Your task to perform on an android device: open app "McDonald's" (install if not already installed) Image 0: 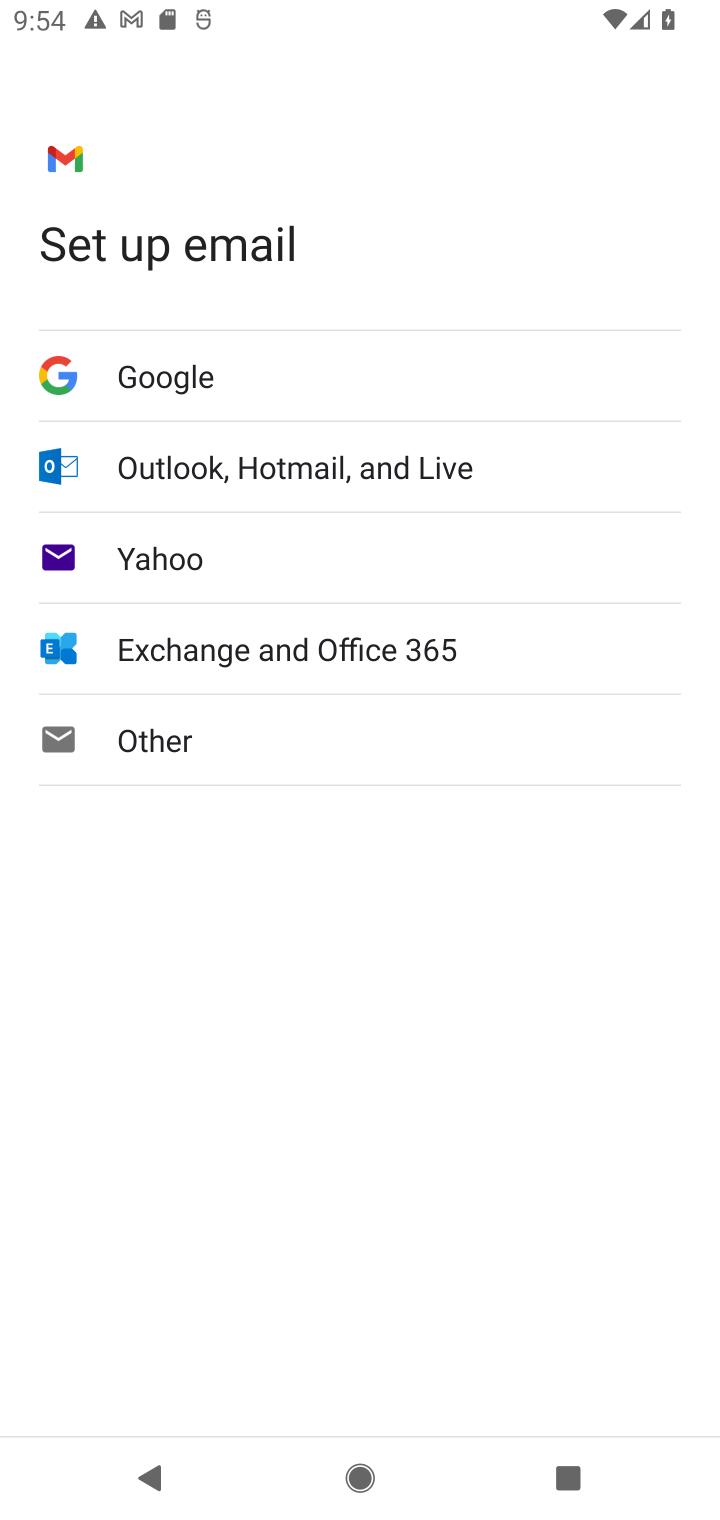
Step 0: press home button
Your task to perform on an android device: open app "McDonald's" (install if not already installed) Image 1: 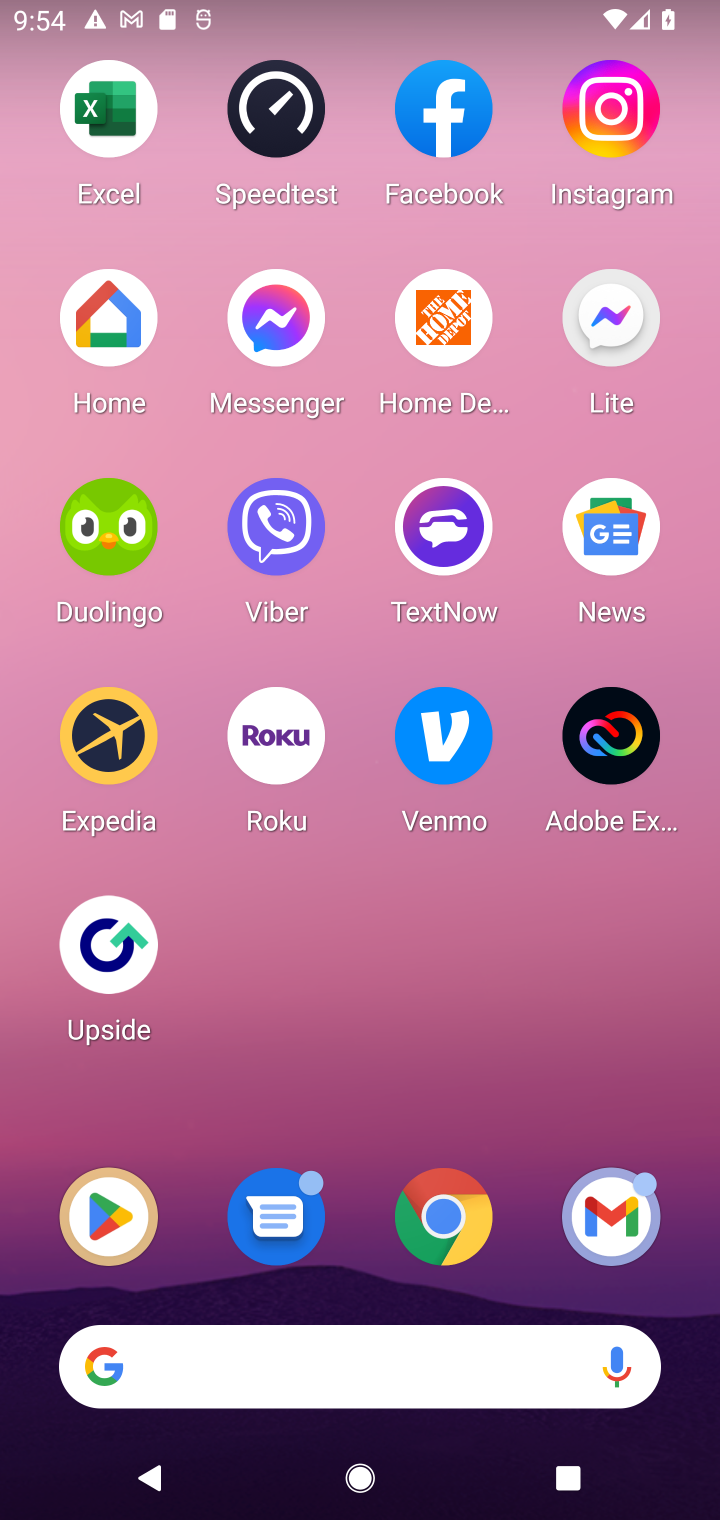
Step 1: click (105, 1214)
Your task to perform on an android device: open app "McDonald's" (install if not already installed) Image 2: 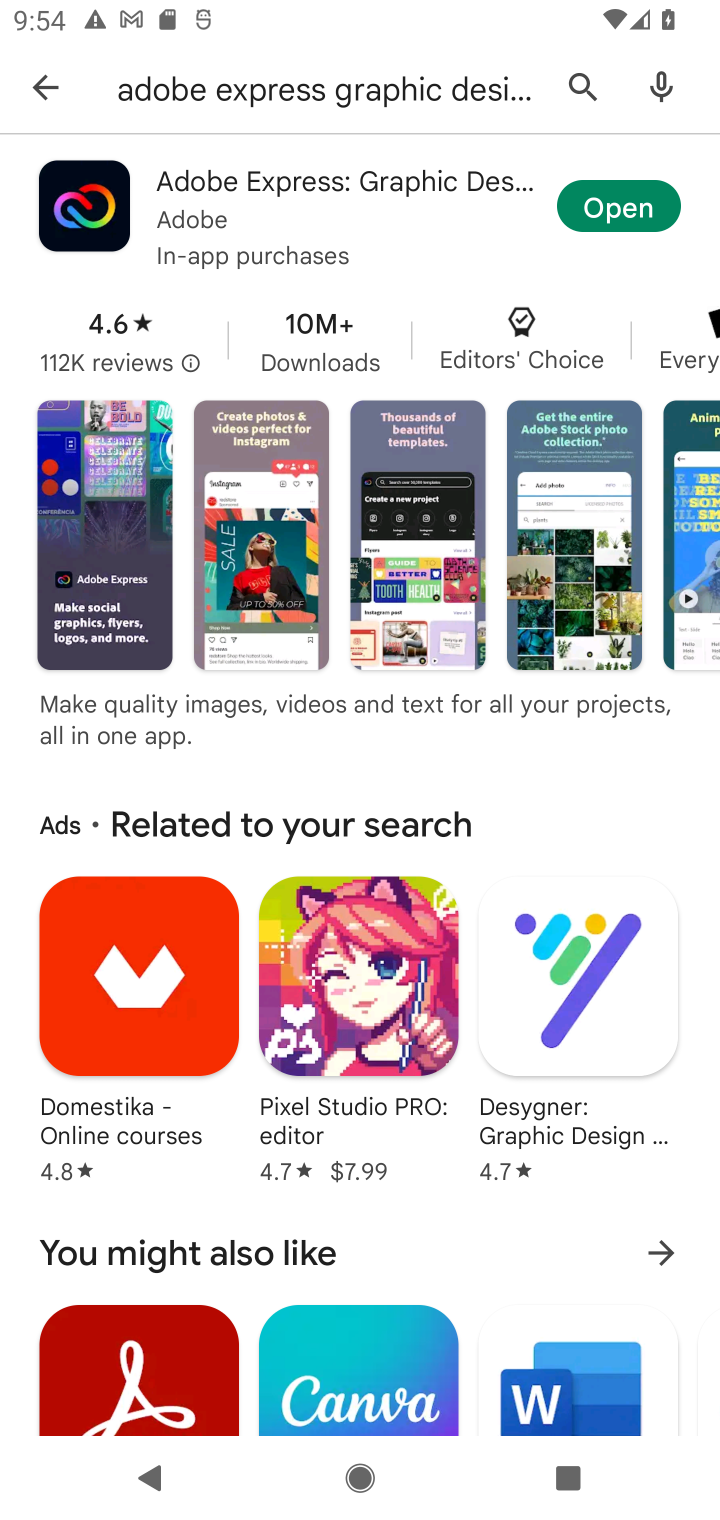
Step 2: click (577, 87)
Your task to perform on an android device: open app "McDonald's" (install if not already installed) Image 3: 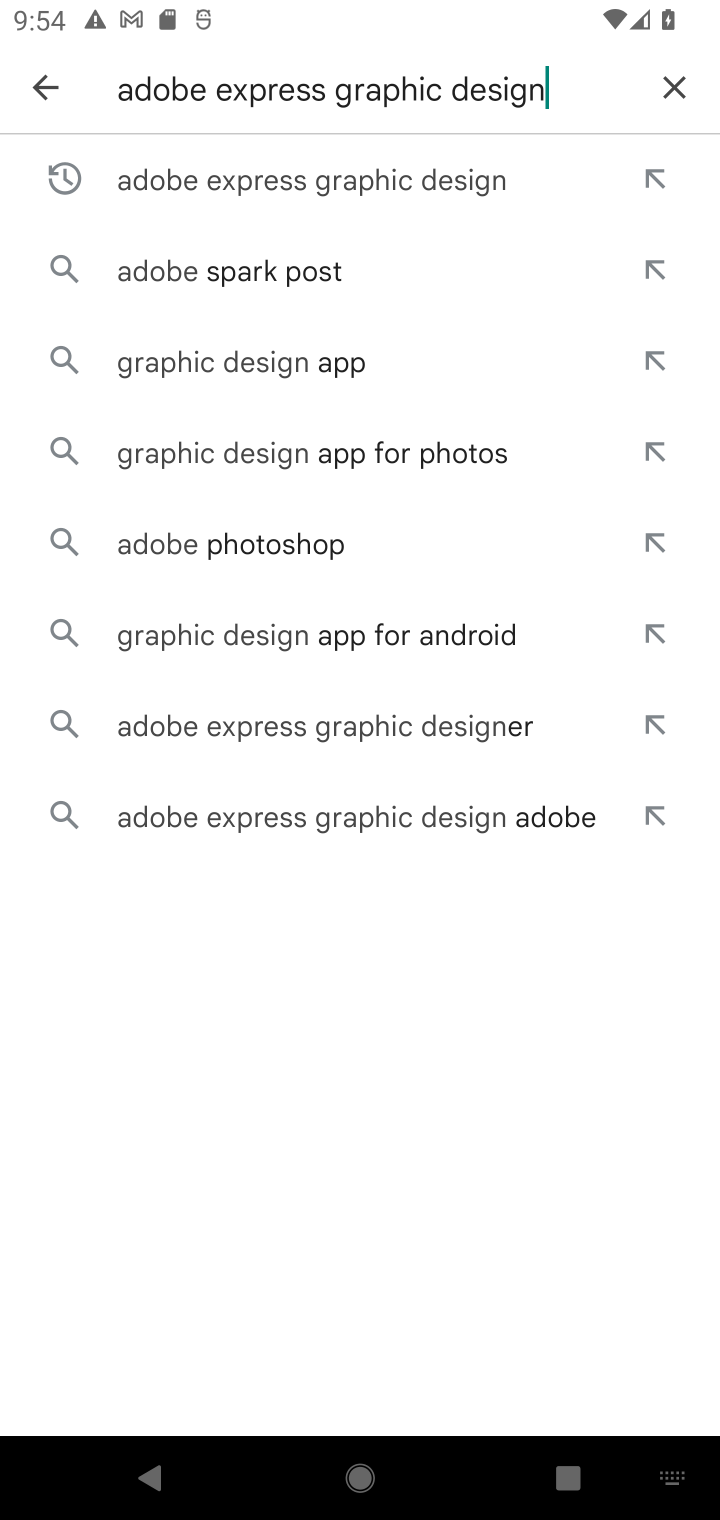
Step 3: click (669, 94)
Your task to perform on an android device: open app "McDonald's" (install if not already installed) Image 4: 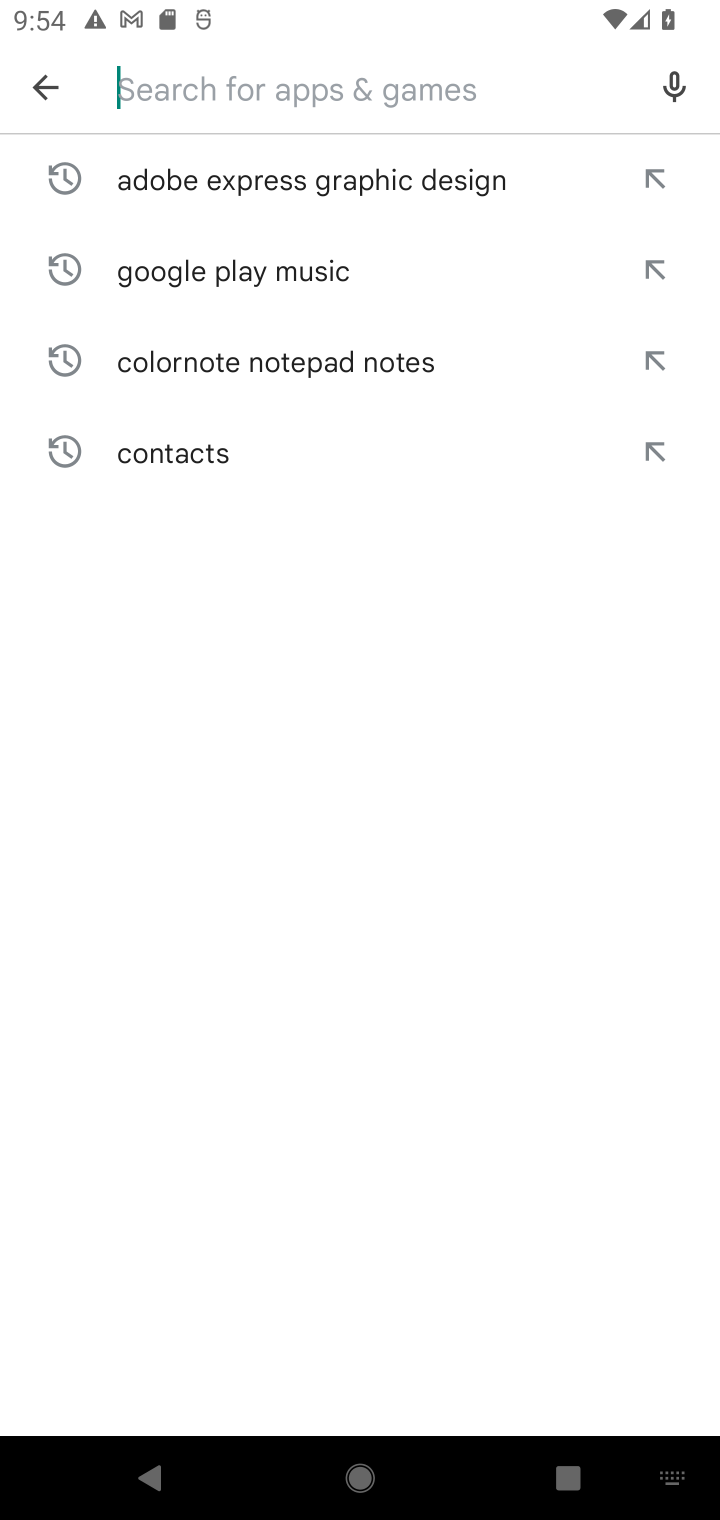
Step 4: click (377, 101)
Your task to perform on an android device: open app "McDonald's" (install if not already installed) Image 5: 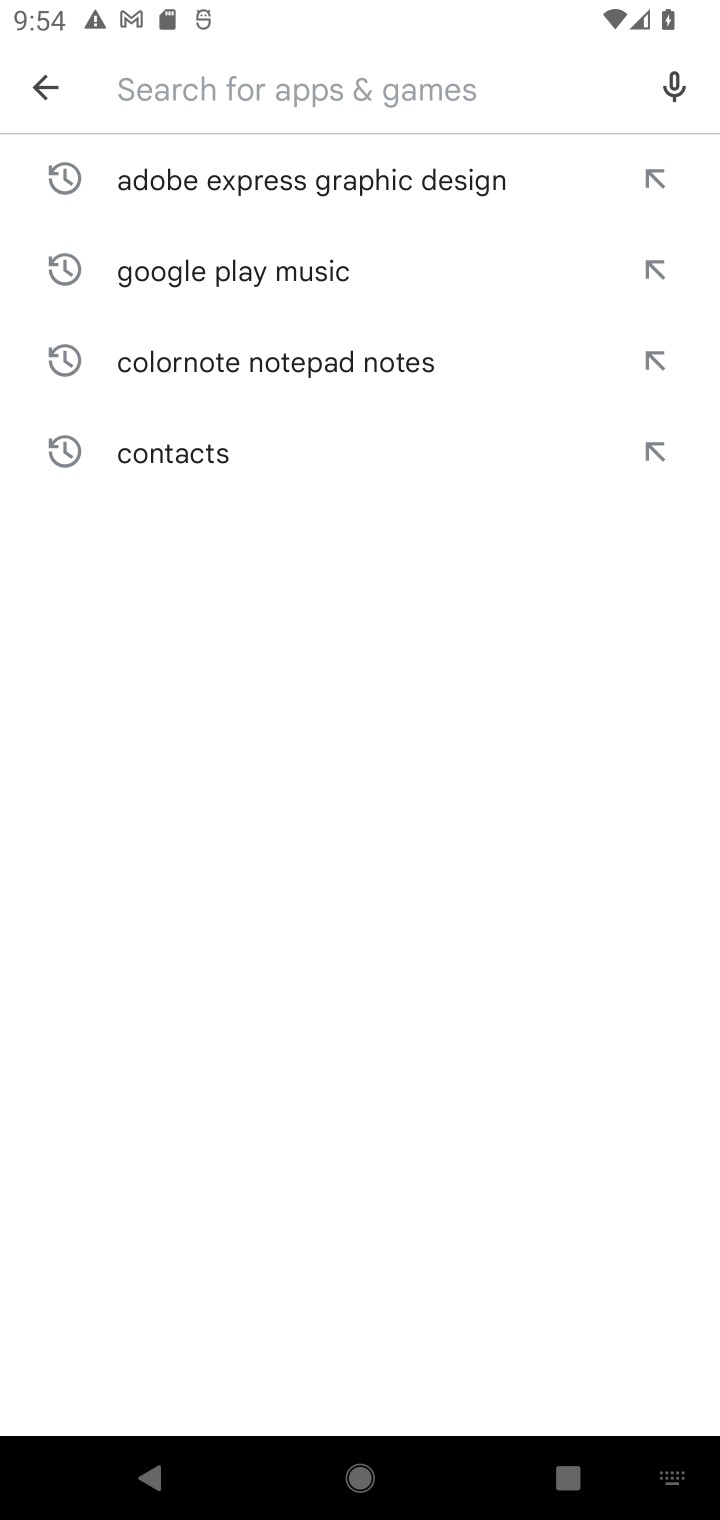
Step 5: type "McDonald's"
Your task to perform on an android device: open app "McDonald's" (install if not already installed) Image 6: 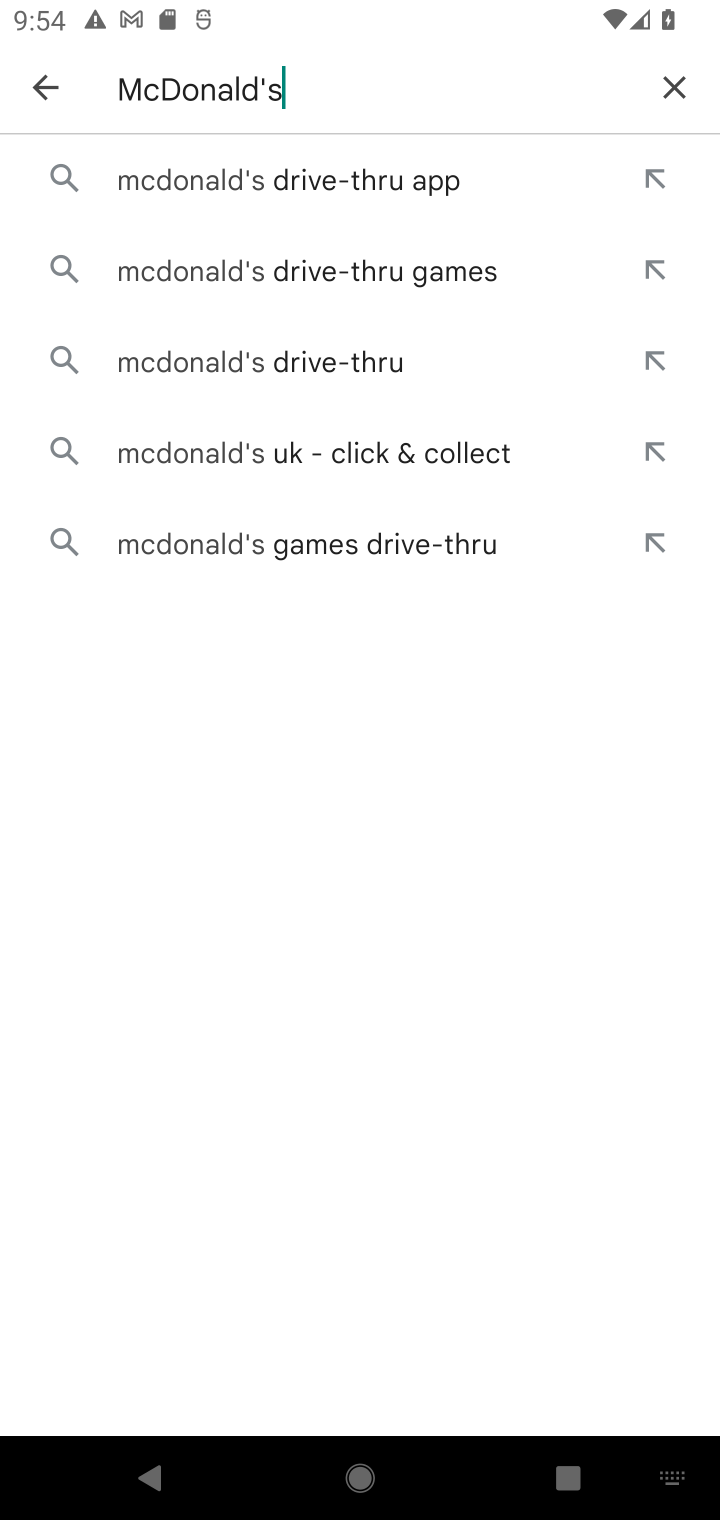
Step 6: click (182, 201)
Your task to perform on an android device: open app "McDonald's" (install if not already installed) Image 7: 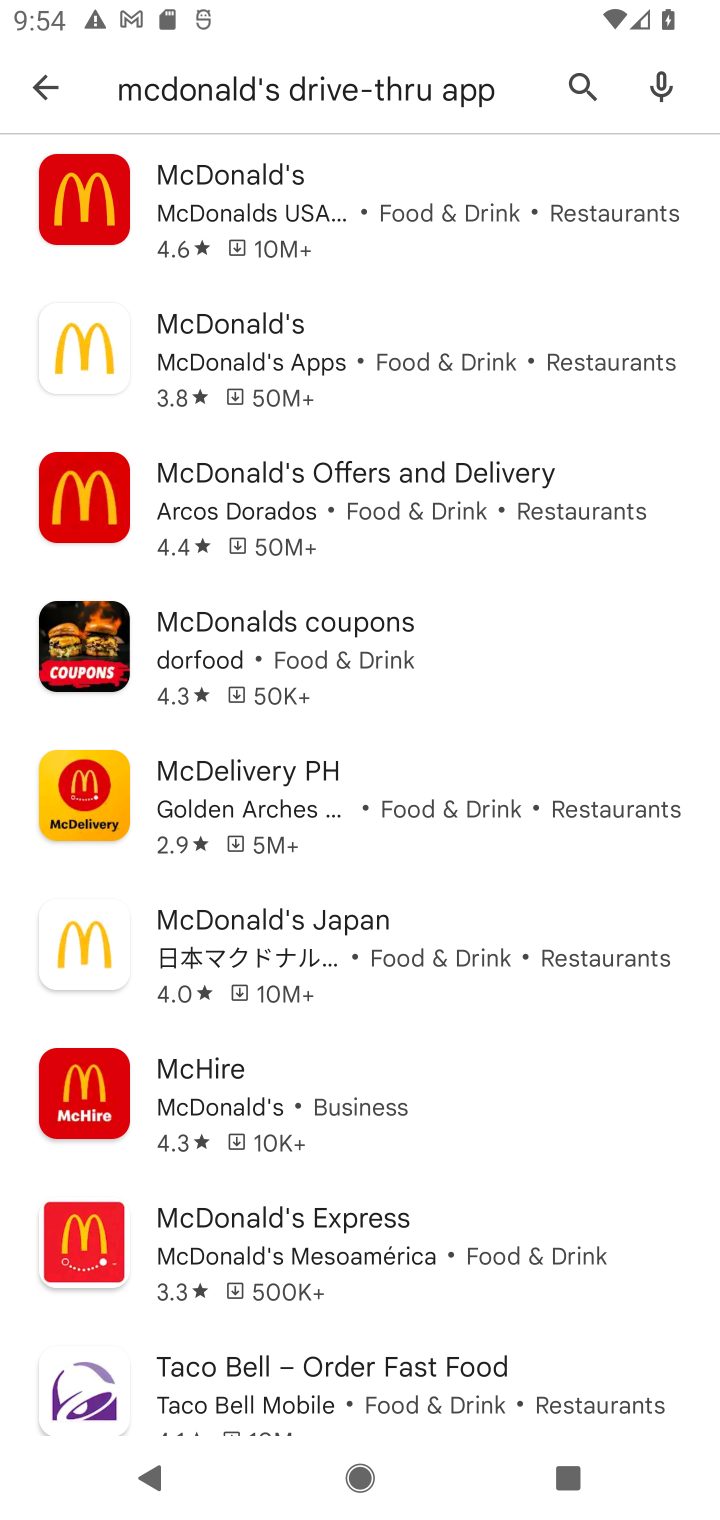
Step 7: click (190, 214)
Your task to perform on an android device: open app "McDonald's" (install if not already installed) Image 8: 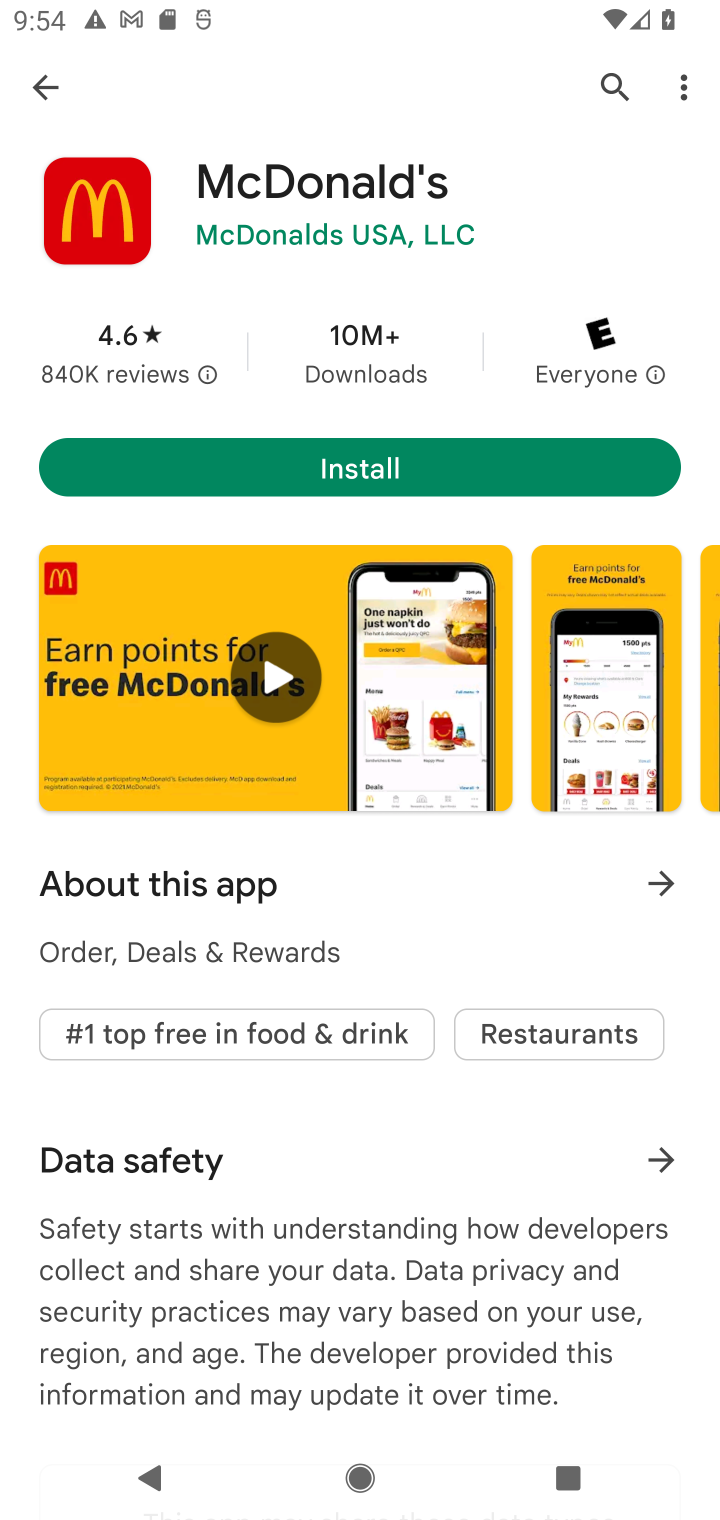
Step 8: click (323, 456)
Your task to perform on an android device: open app "McDonald's" (install if not already installed) Image 9: 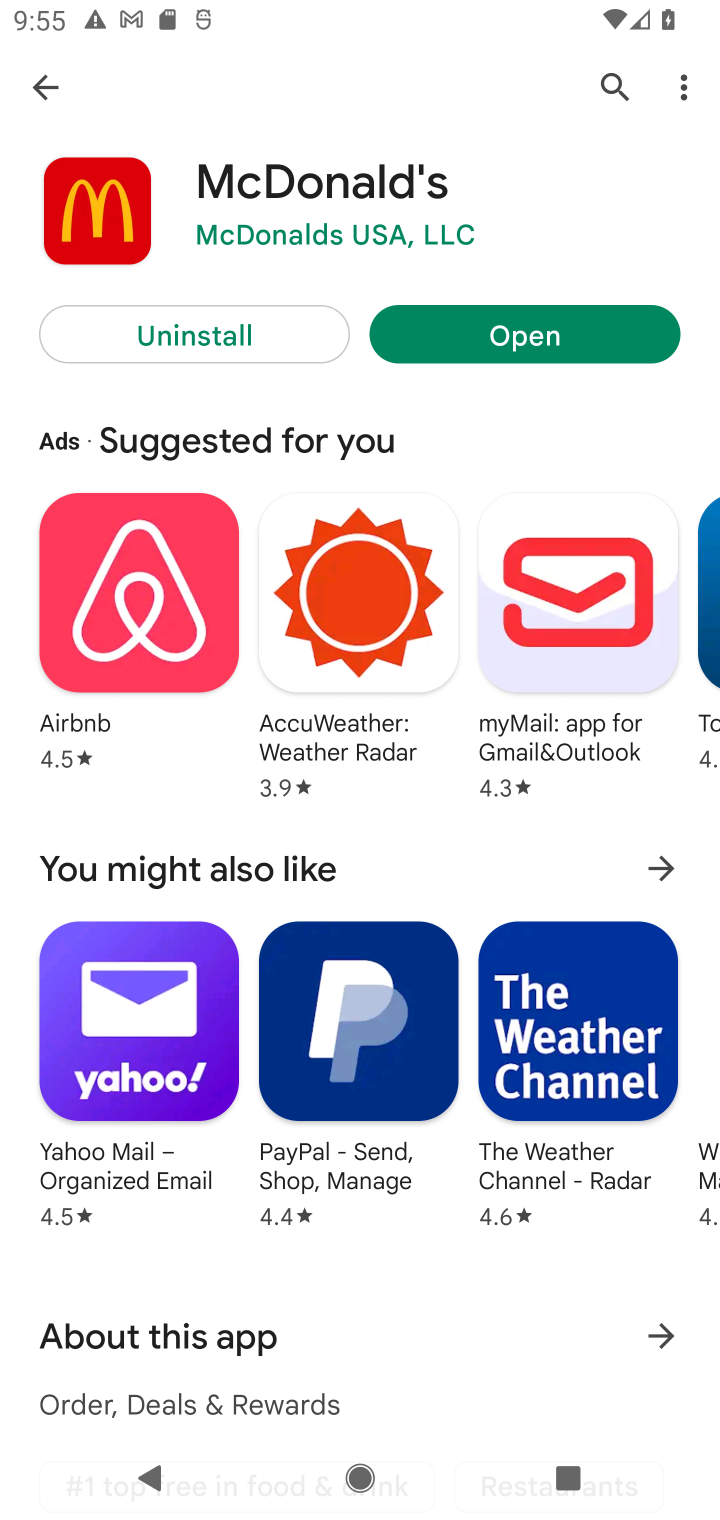
Step 9: click (518, 343)
Your task to perform on an android device: open app "McDonald's" (install if not already installed) Image 10: 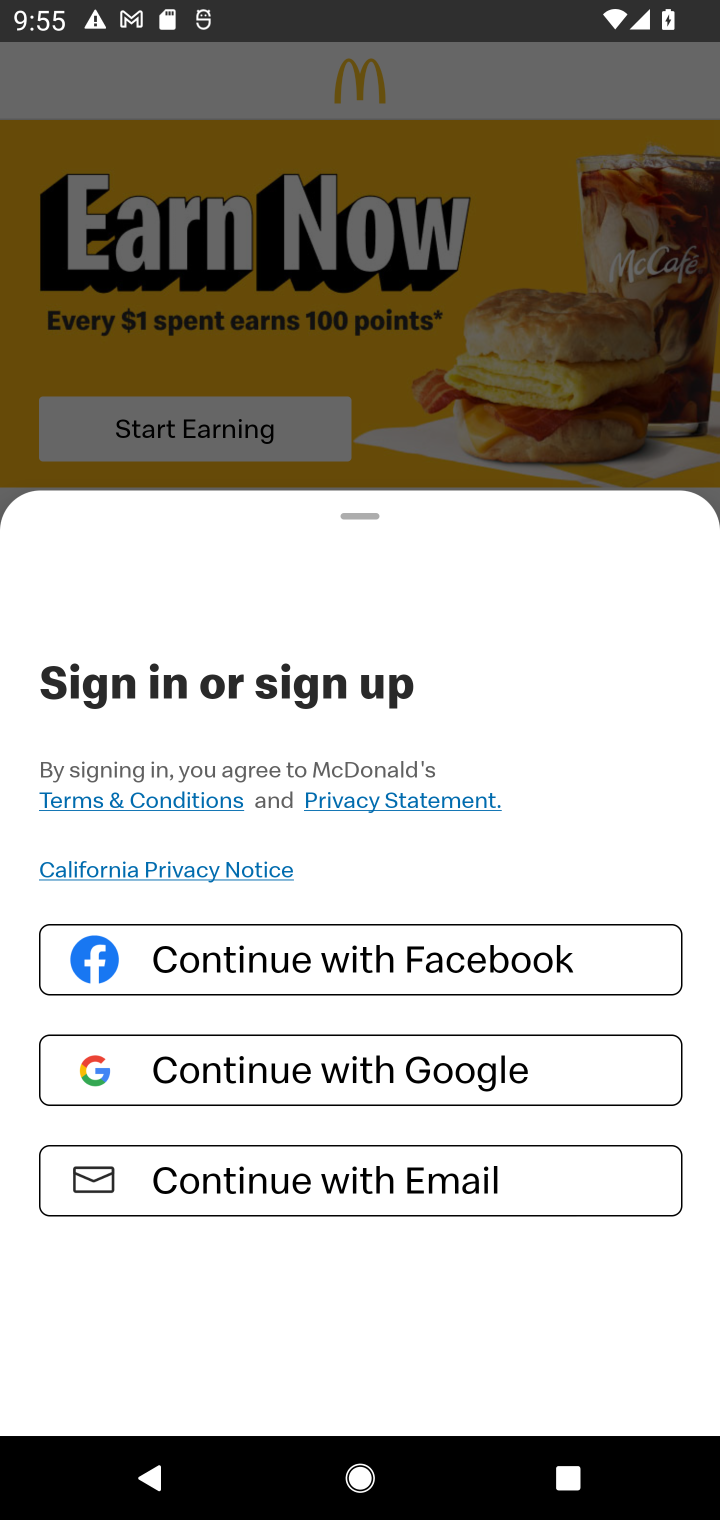
Step 10: task complete